Your task to perform on an android device: Go to network settings Image 0: 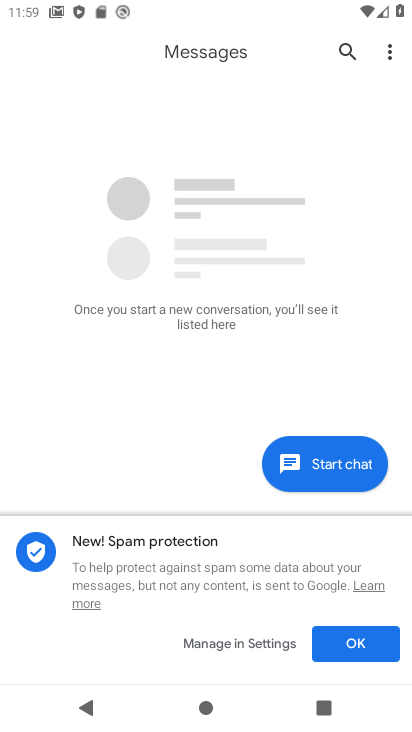
Step 0: press home button
Your task to perform on an android device: Go to network settings Image 1: 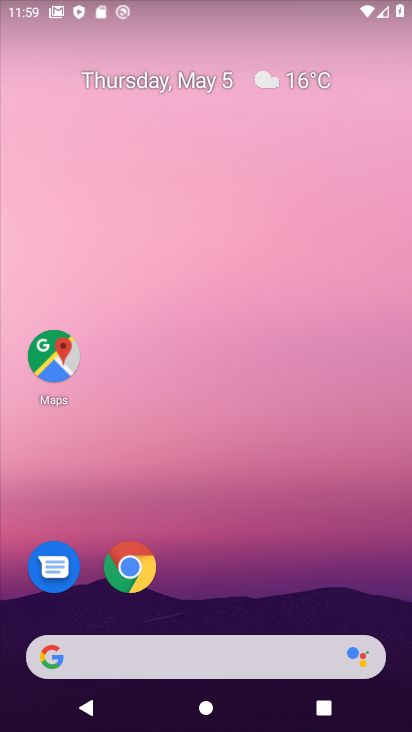
Step 1: drag from (321, 526) to (192, 9)
Your task to perform on an android device: Go to network settings Image 2: 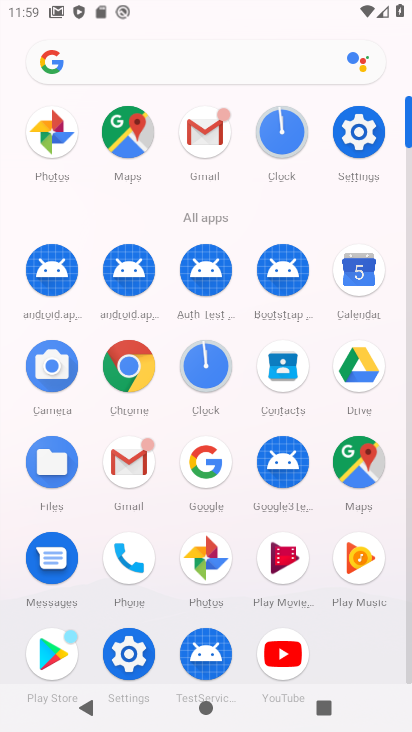
Step 2: click (368, 130)
Your task to perform on an android device: Go to network settings Image 3: 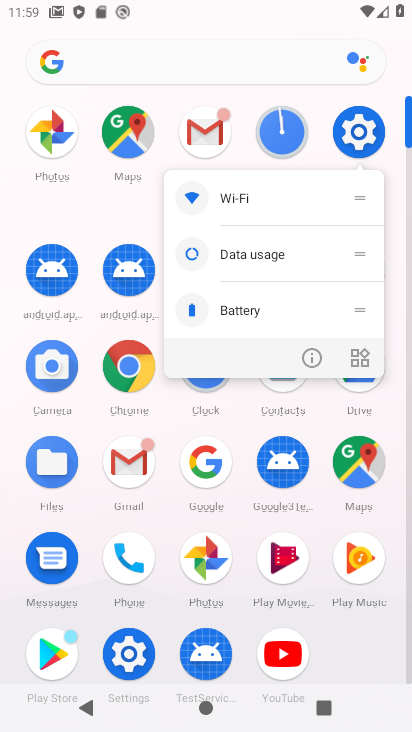
Step 3: click (368, 130)
Your task to perform on an android device: Go to network settings Image 4: 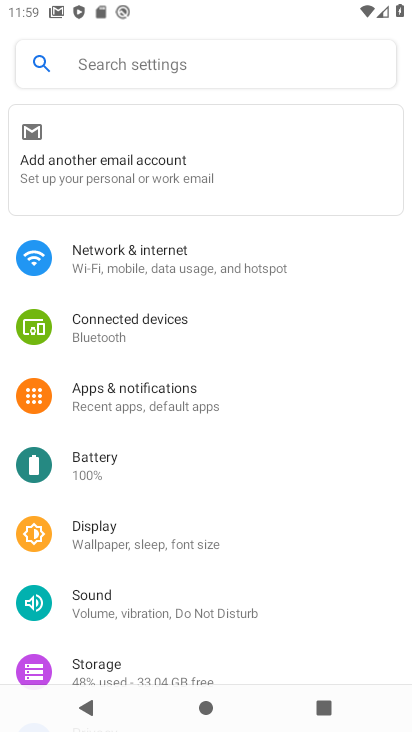
Step 4: click (120, 257)
Your task to perform on an android device: Go to network settings Image 5: 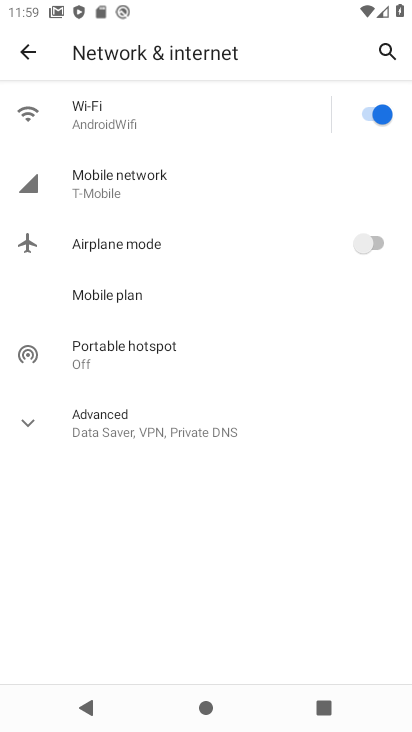
Step 5: task complete